Your task to perform on an android device: check battery use Image 0: 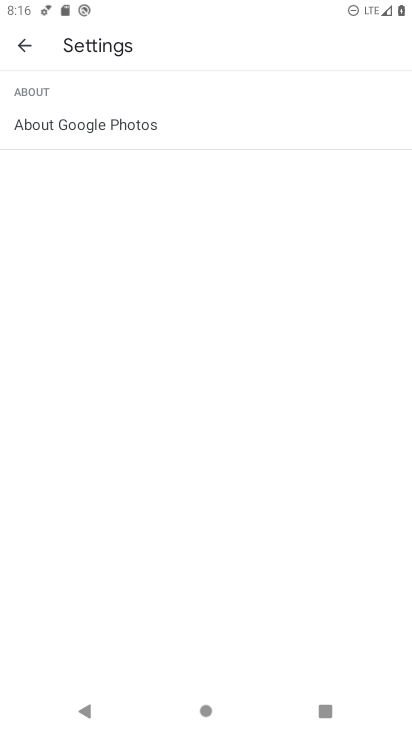
Step 0: press home button
Your task to perform on an android device: check battery use Image 1: 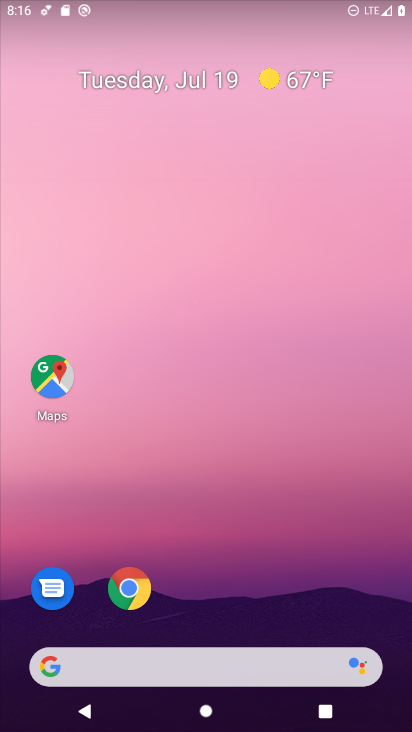
Step 1: drag from (344, 567) to (356, 99)
Your task to perform on an android device: check battery use Image 2: 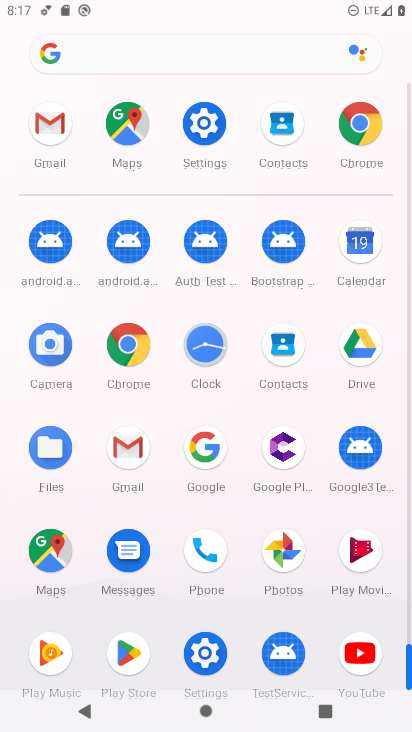
Step 2: click (210, 128)
Your task to perform on an android device: check battery use Image 3: 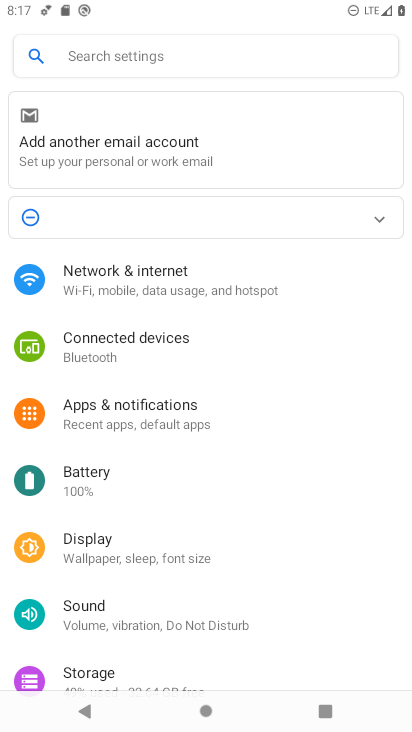
Step 3: drag from (329, 559) to (331, 478)
Your task to perform on an android device: check battery use Image 4: 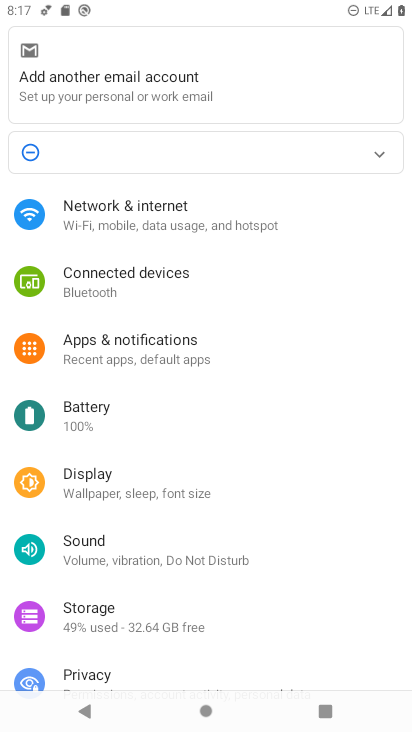
Step 4: drag from (321, 594) to (320, 491)
Your task to perform on an android device: check battery use Image 5: 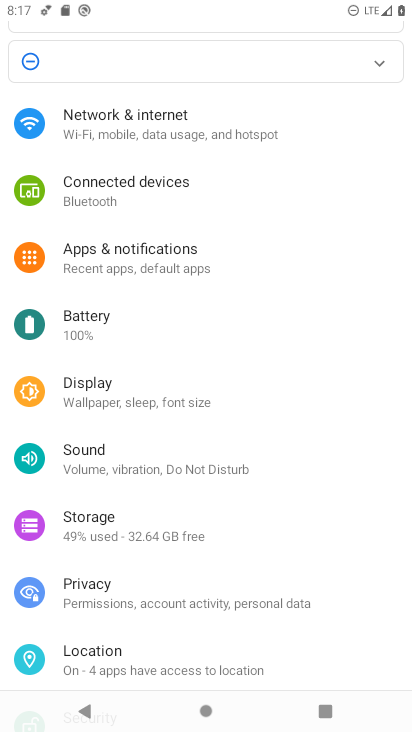
Step 5: drag from (337, 581) to (337, 480)
Your task to perform on an android device: check battery use Image 6: 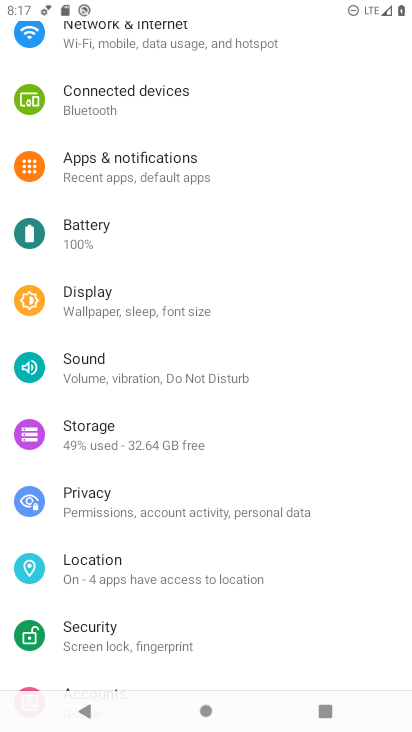
Step 6: drag from (343, 587) to (355, 489)
Your task to perform on an android device: check battery use Image 7: 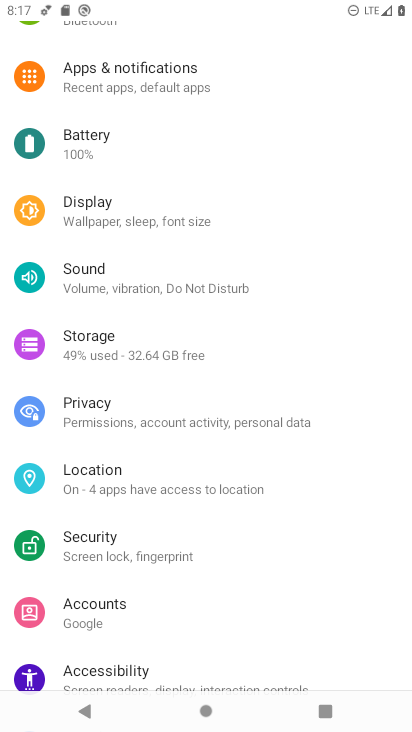
Step 7: drag from (344, 559) to (356, 434)
Your task to perform on an android device: check battery use Image 8: 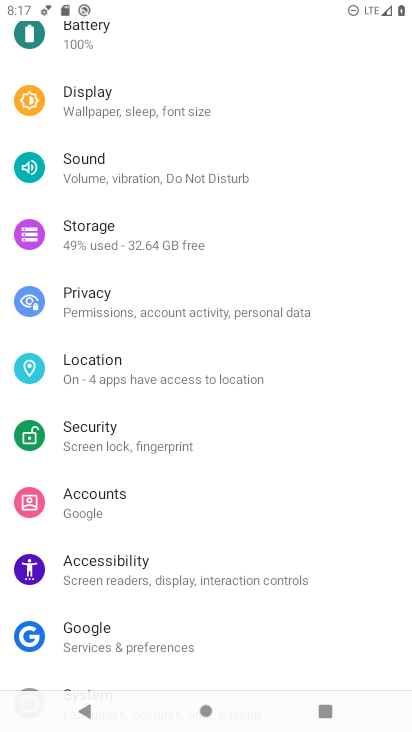
Step 8: drag from (340, 549) to (335, 388)
Your task to perform on an android device: check battery use Image 9: 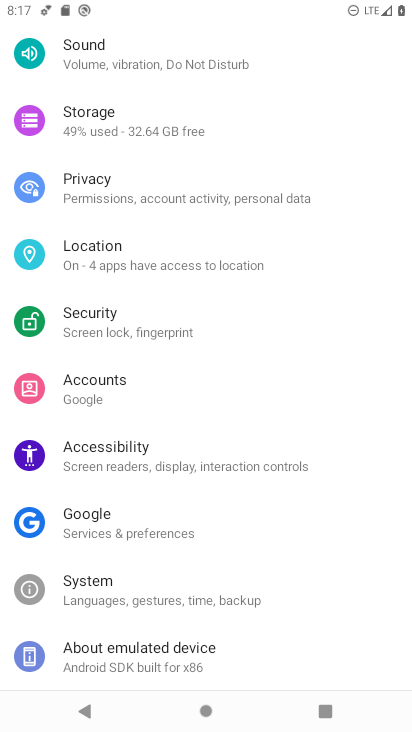
Step 9: drag from (346, 320) to (337, 398)
Your task to perform on an android device: check battery use Image 10: 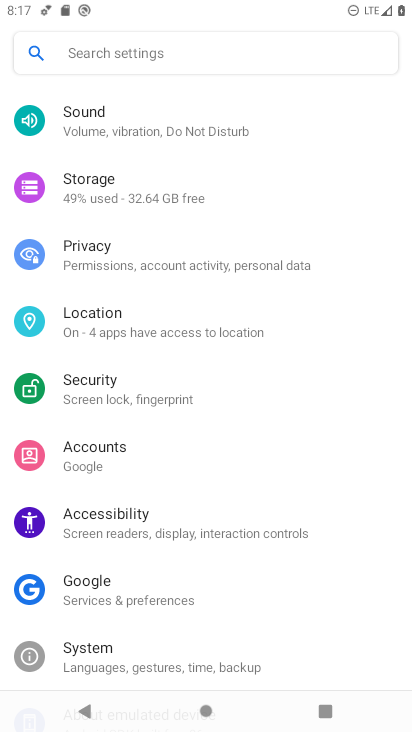
Step 10: drag from (347, 300) to (350, 371)
Your task to perform on an android device: check battery use Image 11: 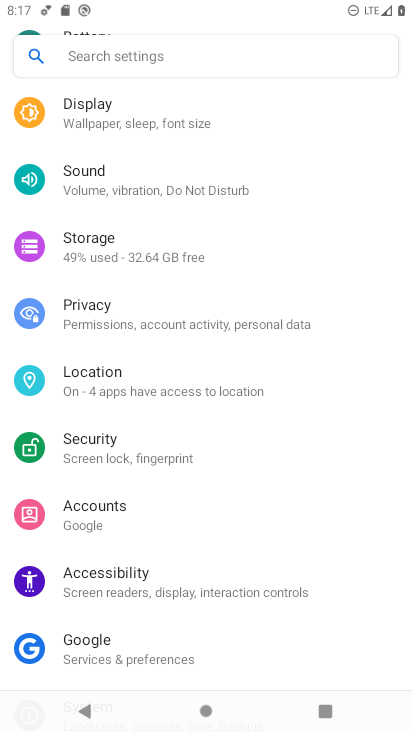
Step 11: drag from (341, 268) to (340, 363)
Your task to perform on an android device: check battery use Image 12: 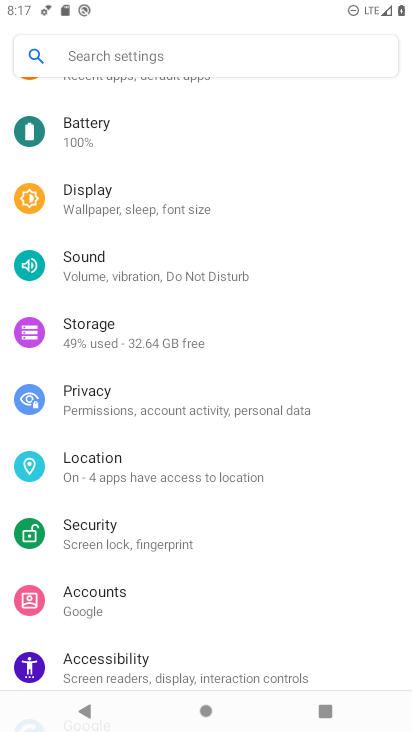
Step 12: drag from (348, 253) to (335, 370)
Your task to perform on an android device: check battery use Image 13: 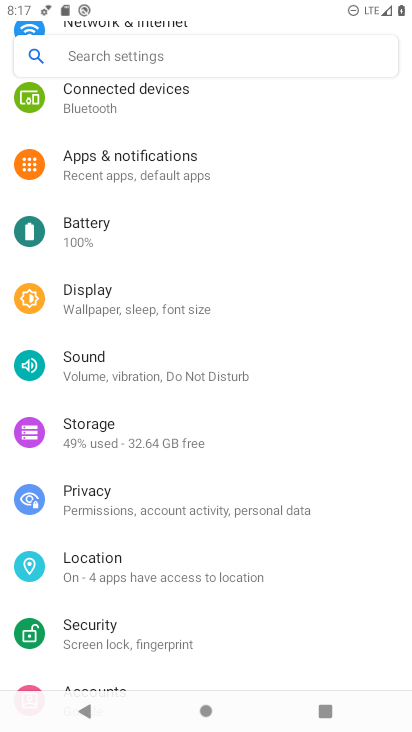
Step 13: drag from (334, 237) to (339, 453)
Your task to perform on an android device: check battery use Image 14: 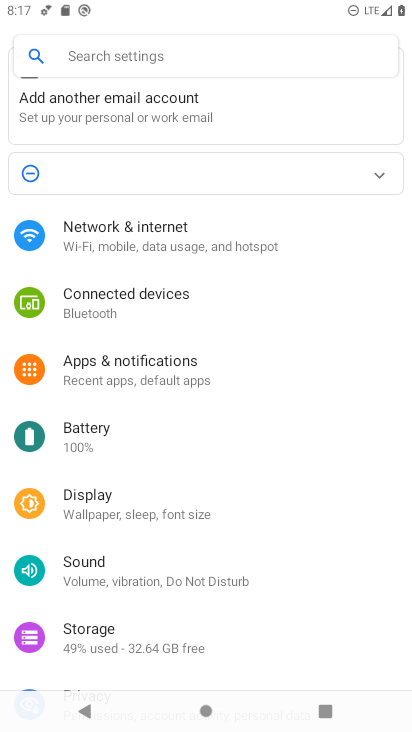
Step 14: click (216, 447)
Your task to perform on an android device: check battery use Image 15: 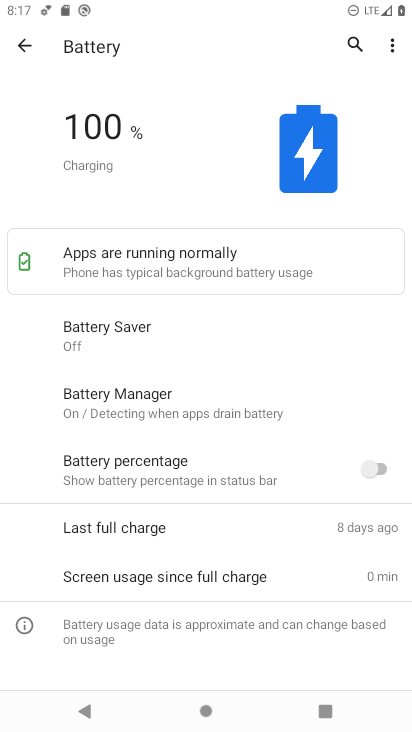
Step 15: click (392, 50)
Your task to perform on an android device: check battery use Image 16: 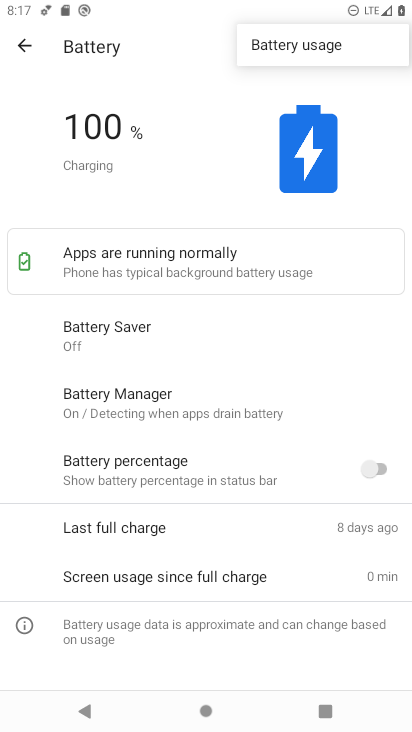
Step 16: click (347, 47)
Your task to perform on an android device: check battery use Image 17: 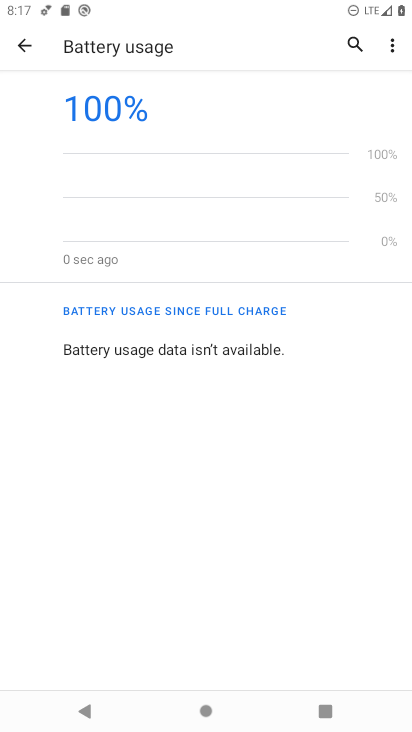
Step 17: task complete